Your task to perform on an android device: Toggle the flashlight Image 0: 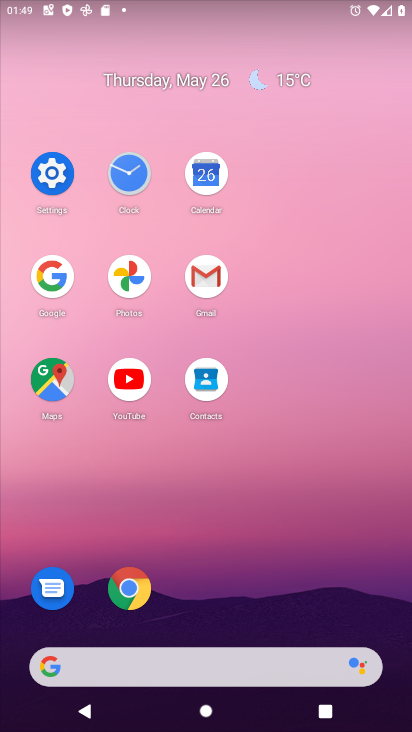
Step 0: drag from (215, 4) to (257, 330)
Your task to perform on an android device: Toggle the flashlight Image 1: 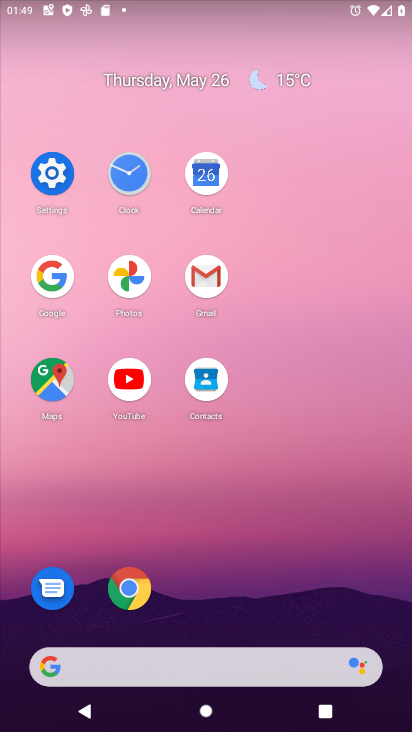
Step 1: task complete